Your task to perform on an android device: Do I have any events tomorrow? Image 0: 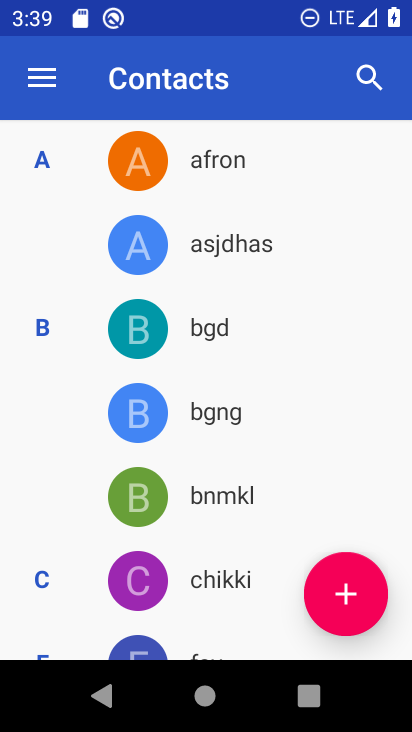
Step 0: press back button
Your task to perform on an android device: Do I have any events tomorrow? Image 1: 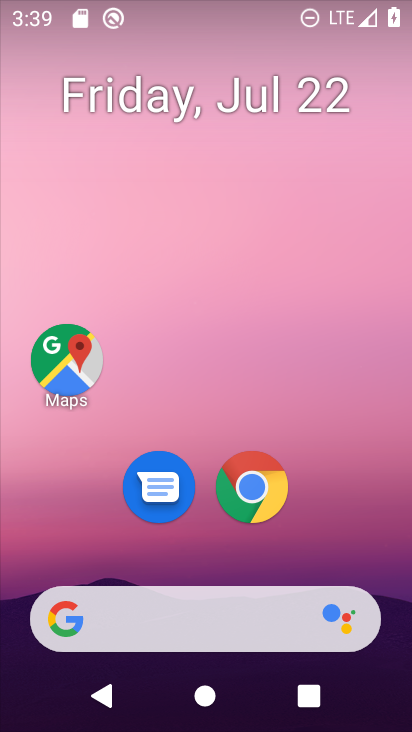
Step 1: drag from (159, 558) to (254, 17)
Your task to perform on an android device: Do I have any events tomorrow? Image 2: 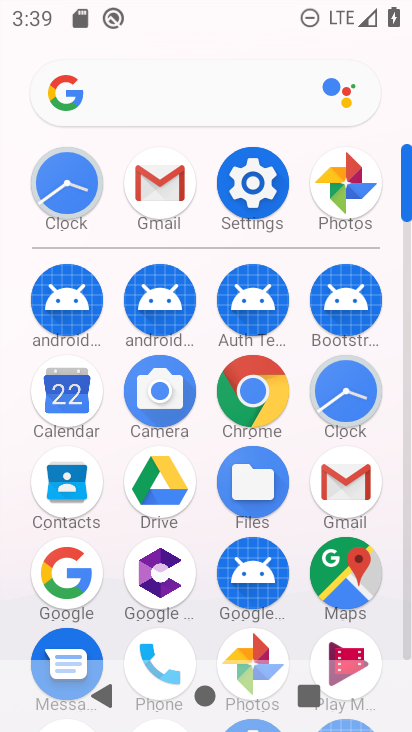
Step 2: click (61, 399)
Your task to perform on an android device: Do I have any events tomorrow? Image 3: 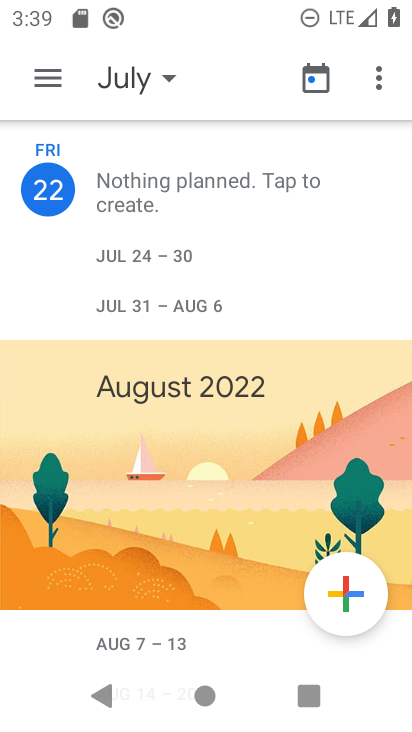
Step 3: click (165, 80)
Your task to perform on an android device: Do I have any events tomorrow? Image 4: 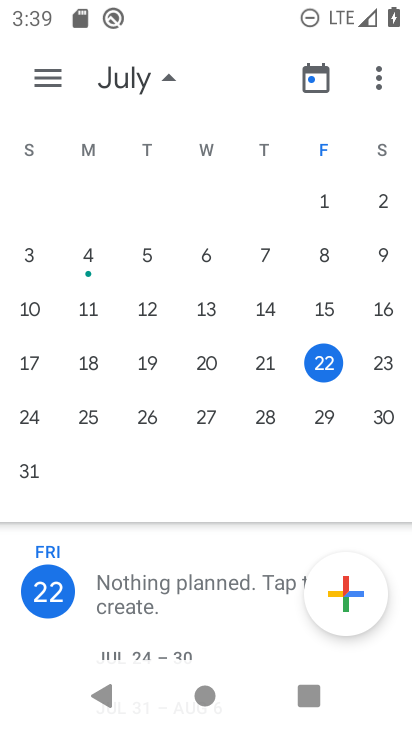
Step 4: click (378, 363)
Your task to perform on an android device: Do I have any events tomorrow? Image 5: 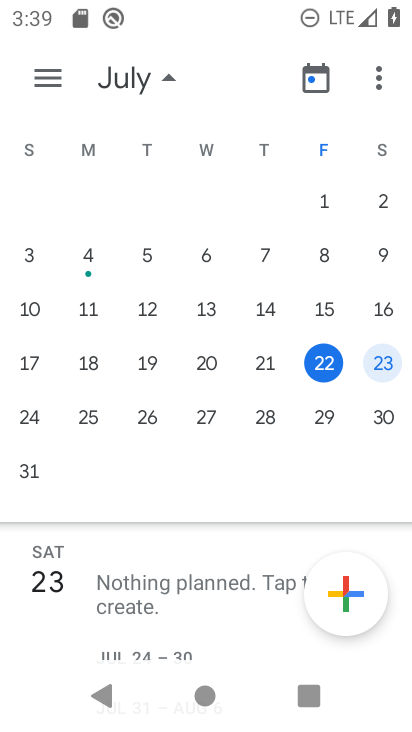
Step 5: task complete